Your task to perform on an android device: Go to eBay Image 0: 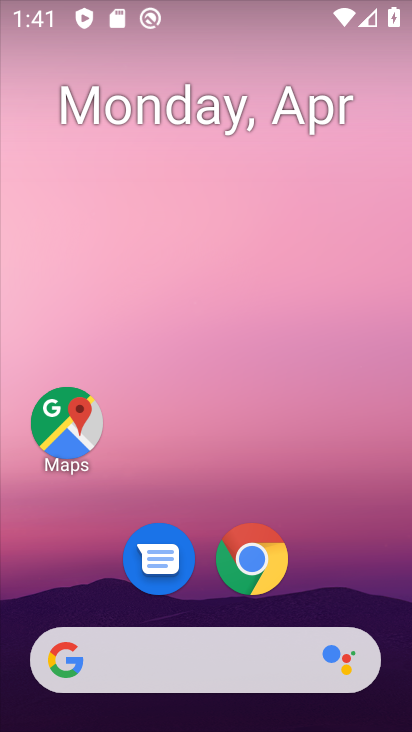
Step 0: click (255, 560)
Your task to perform on an android device: Go to eBay Image 1: 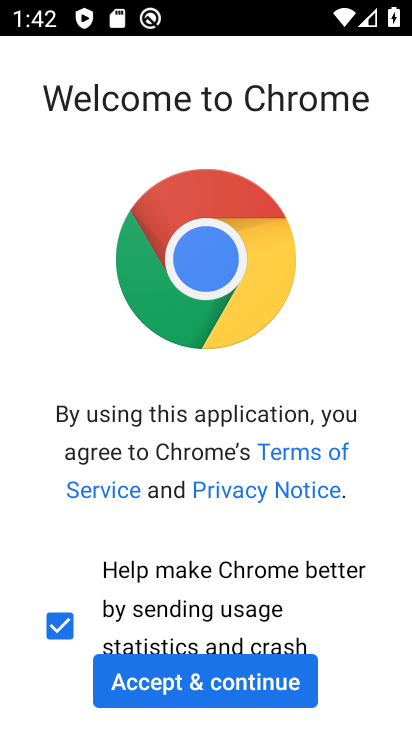
Step 1: click (241, 673)
Your task to perform on an android device: Go to eBay Image 2: 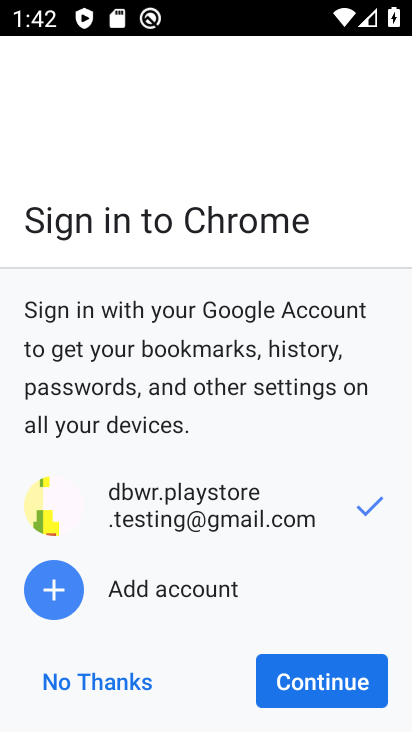
Step 2: click (303, 675)
Your task to perform on an android device: Go to eBay Image 3: 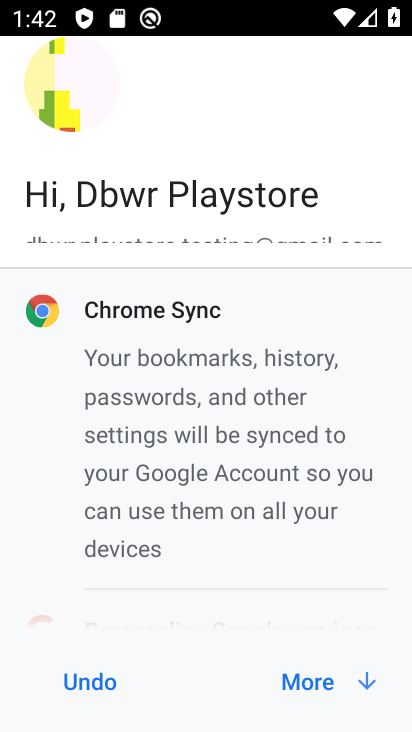
Step 3: click (303, 675)
Your task to perform on an android device: Go to eBay Image 4: 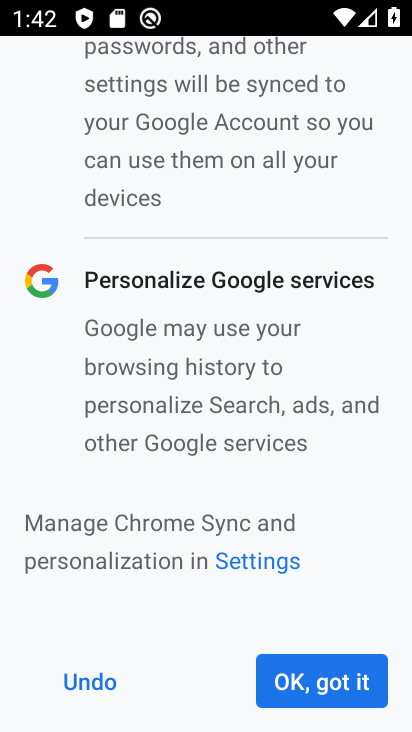
Step 4: click (303, 675)
Your task to perform on an android device: Go to eBay Image 5: 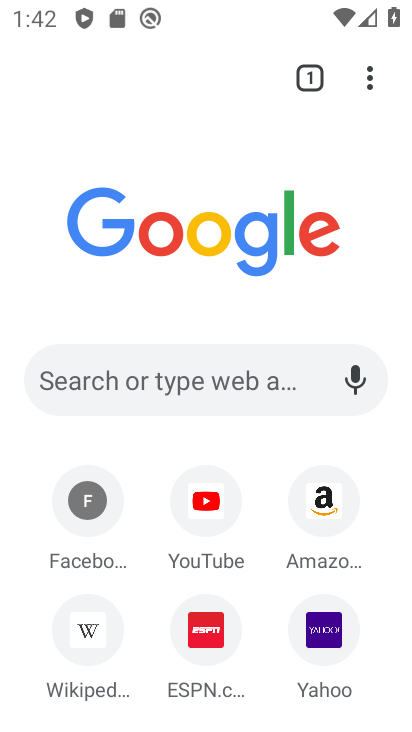
Step 5: drag from (386, 680) to (366, 480)
Your task to perform on an android device: Go to eBay Image 6: 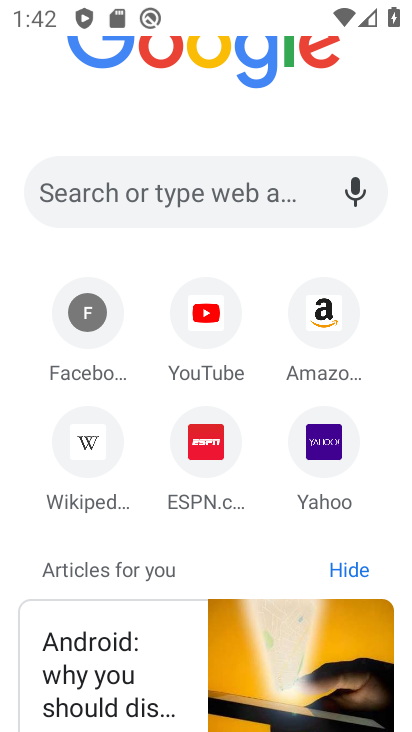
Step 6: click (229, 202)
Your task to perform on an android device: Go to eBay Image 7: 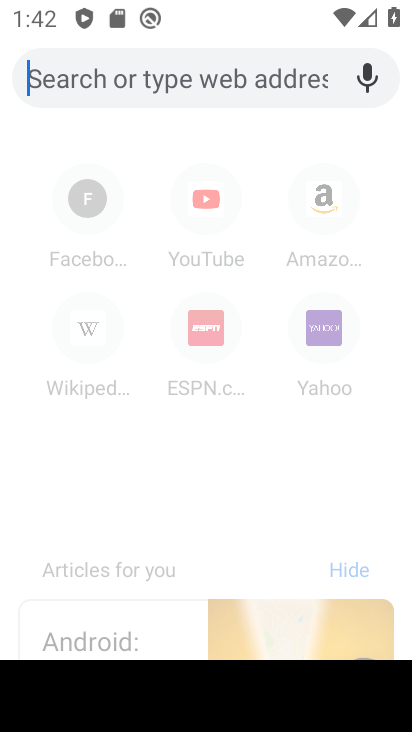
Step 7: type "eBay"
Your task to perform on an android device: Go to eBay Image 8: 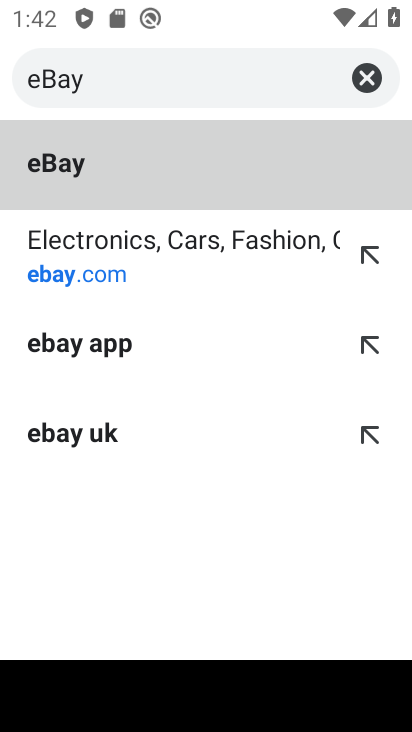
Step 8: click (35, 179)
Your task to perform on an android device: Go to eBay Image 9: 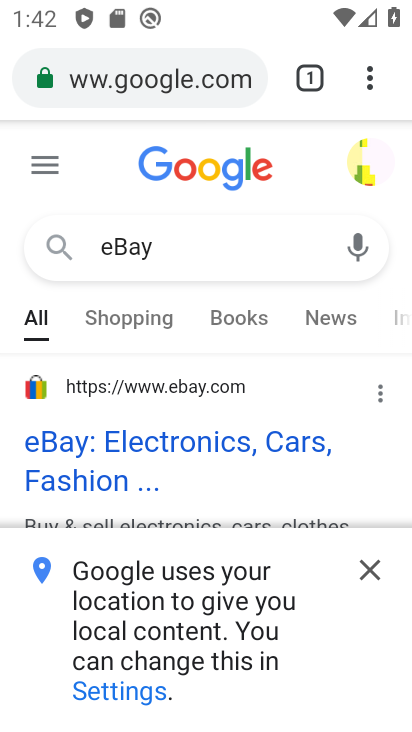
Step 9: click (154, 438)
Your task to perform on an android device: Go to eBay Image 10: 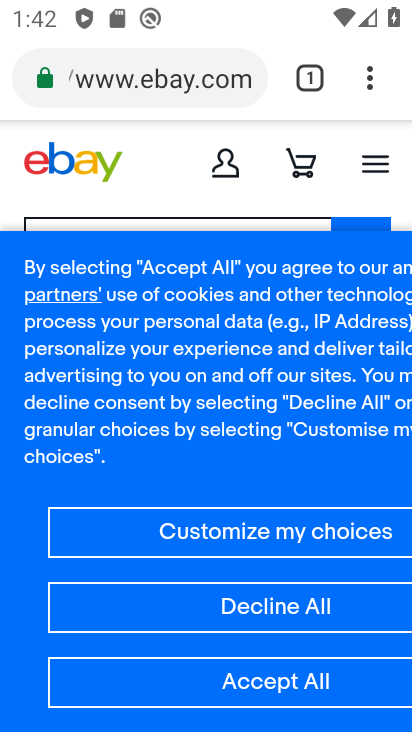
Step 10: task complete